Your task to perform on an android device: Open the phone app and click the voicemail tab. Image 0: 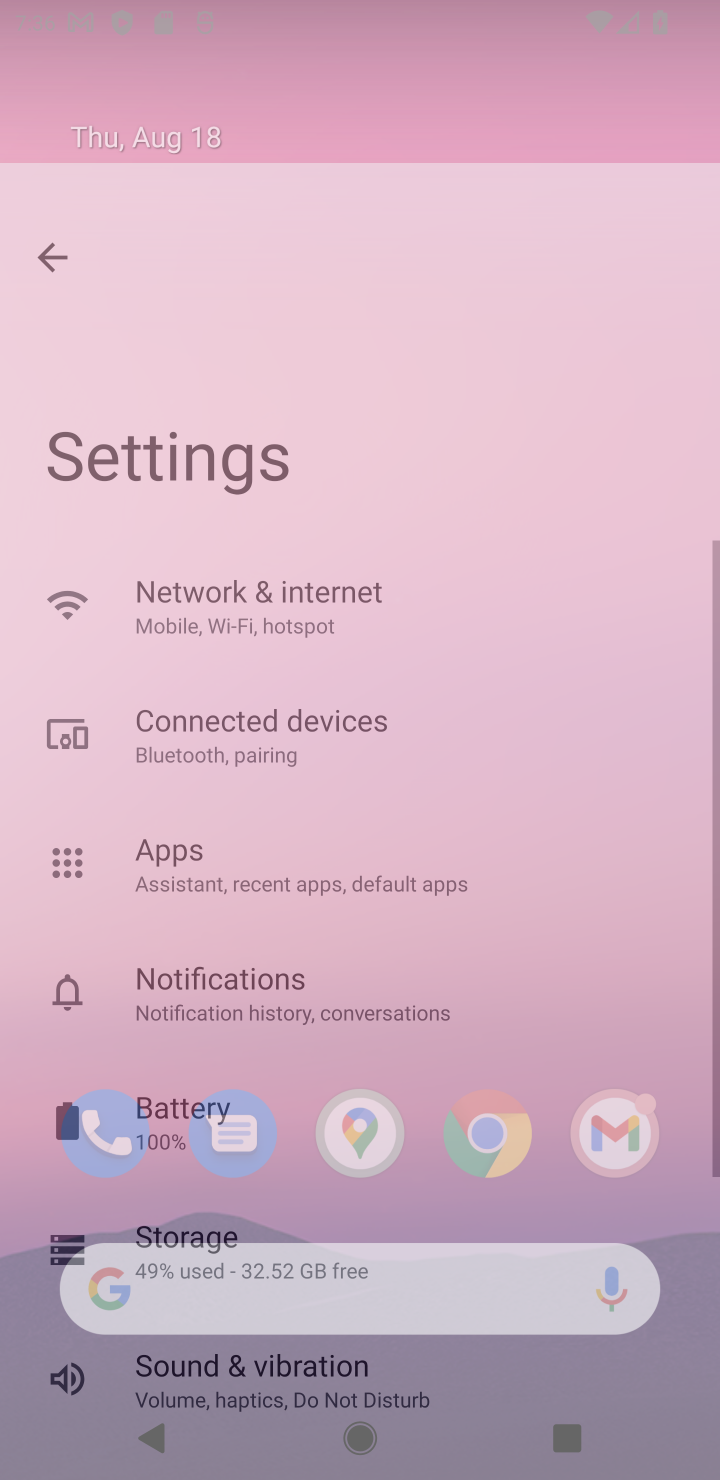
Step 0: press home button
Your task to perform on an android device: Open the phone app and click the voicemail tab. Image 1: 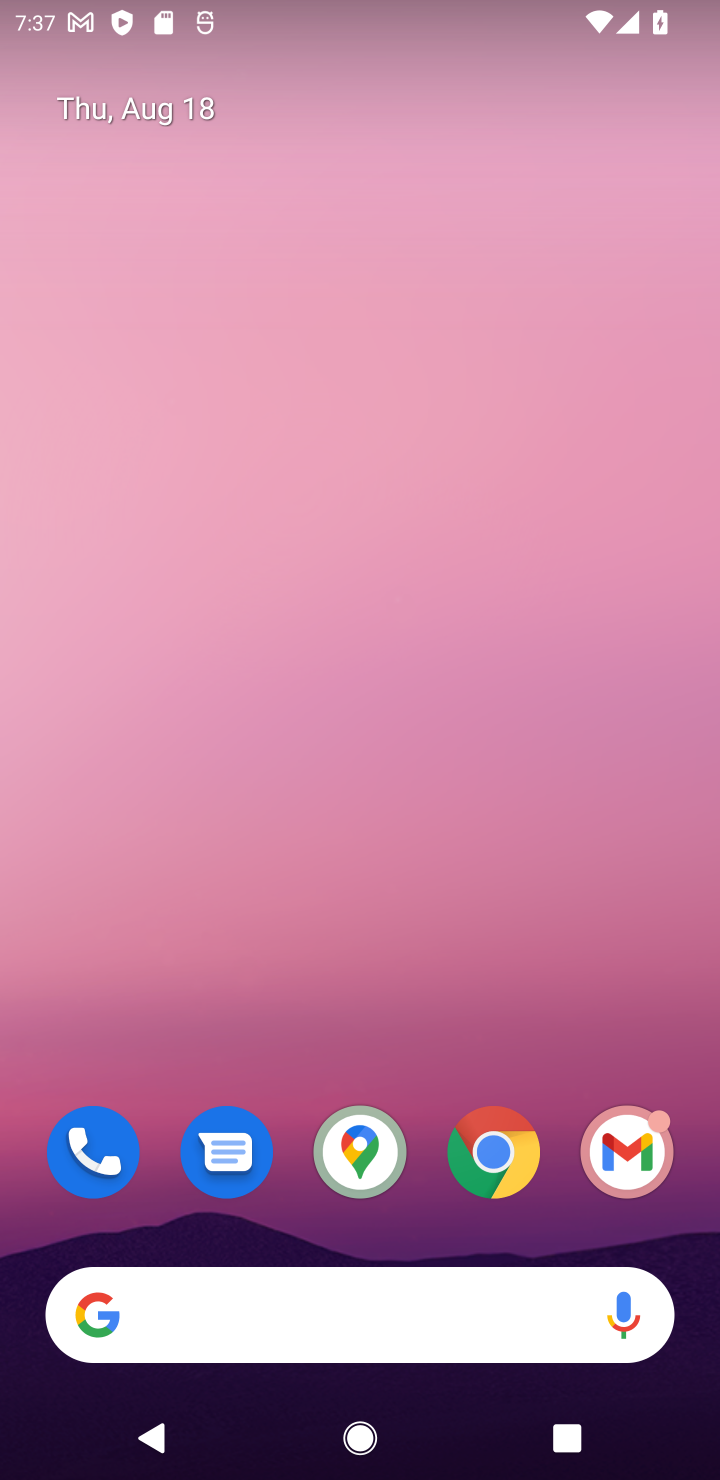
Step 1: click (90, 1159)
Your task to perform on an android device: Open the phone app and click the voicemail tab. Image 2: 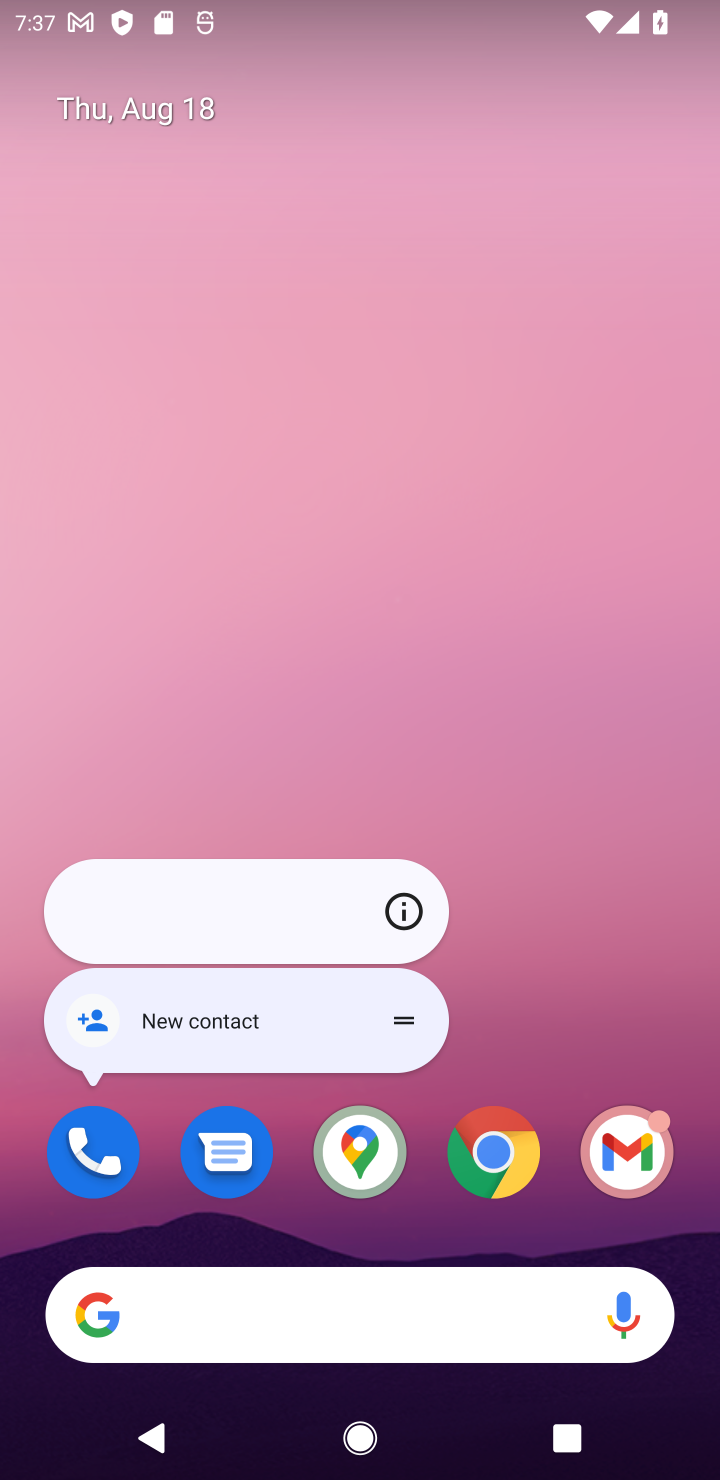
Step 2: click (90, 1159)
Your task to perform on an android device: Open the phone app and click the voicemail tab. Image 3: 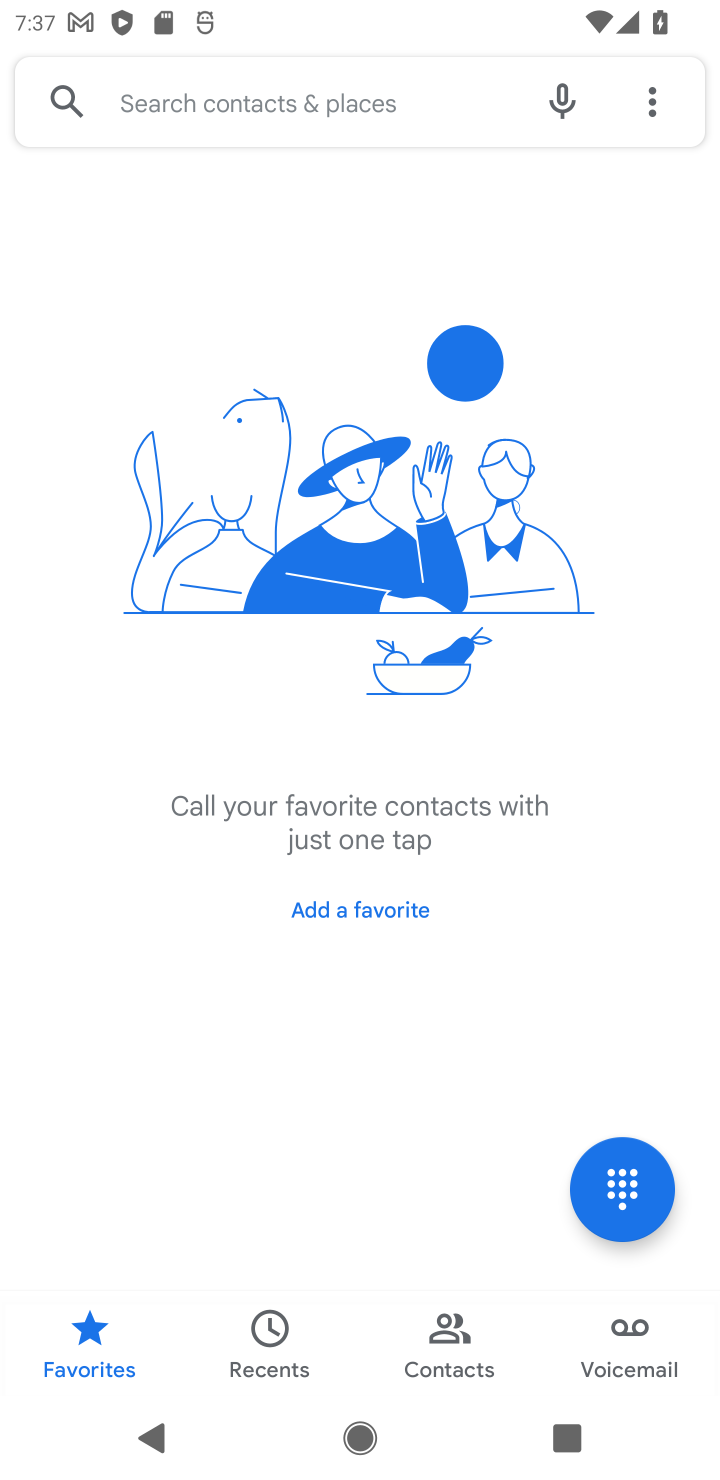
Step 3: click (613, 1366)
Your task to perform on an android device: Open the phone app and click the voicemail tab. Image 4: 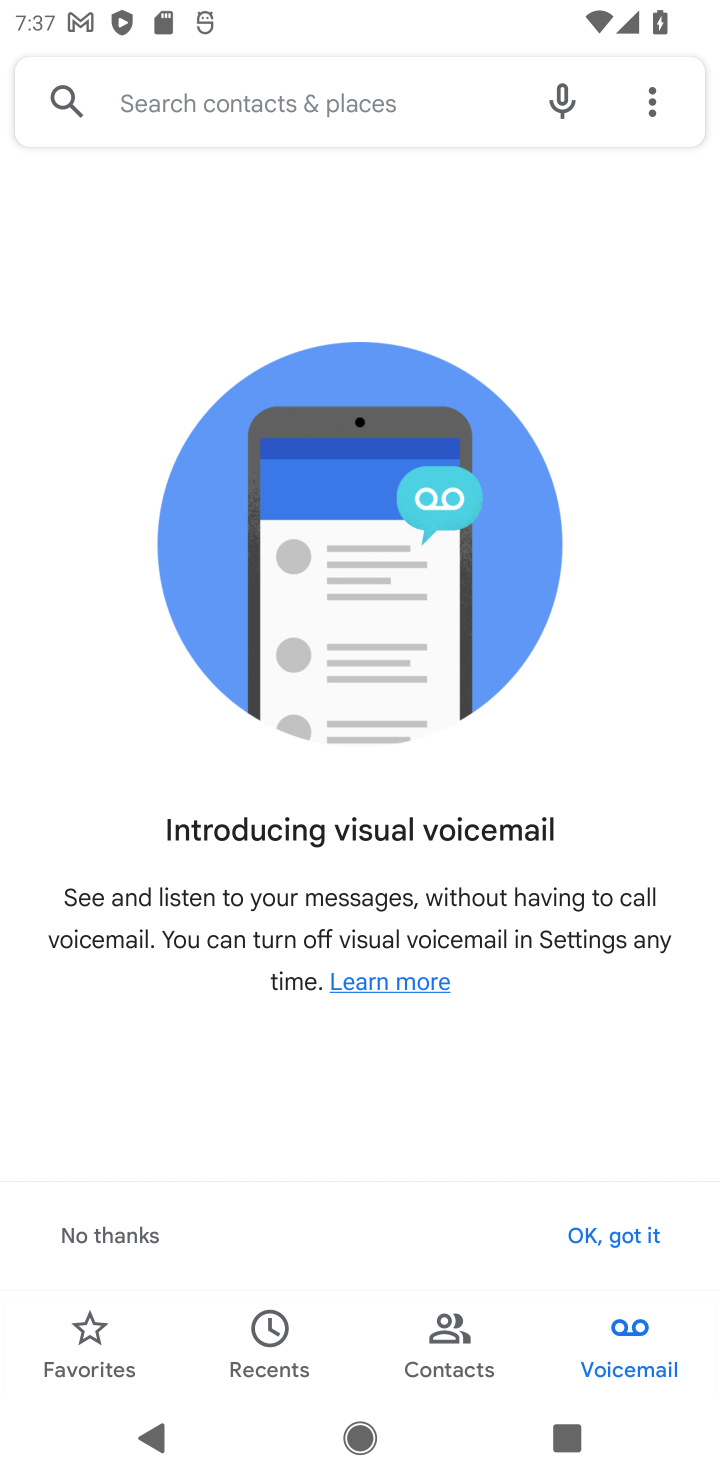
Step 4: task complete